Your task to perform on an android device: Go to notification settings Image 0: 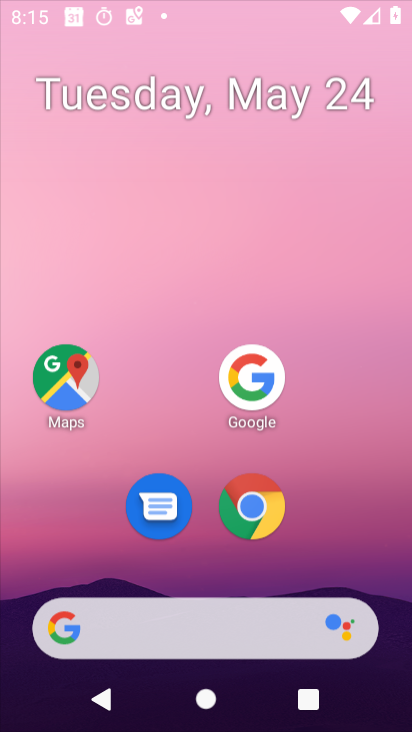
Step 0: click (265, 112)
Your task to perform on an android device: Go to notification settings Image 1: 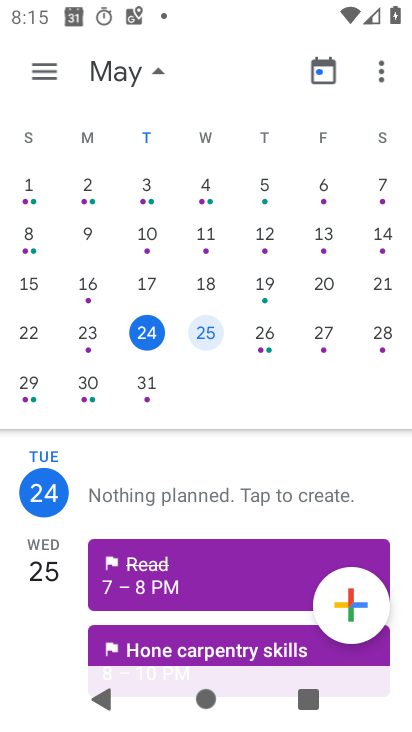
Step 1: press home button
Your task to perform on an android device: Go to notification settings Image 2: 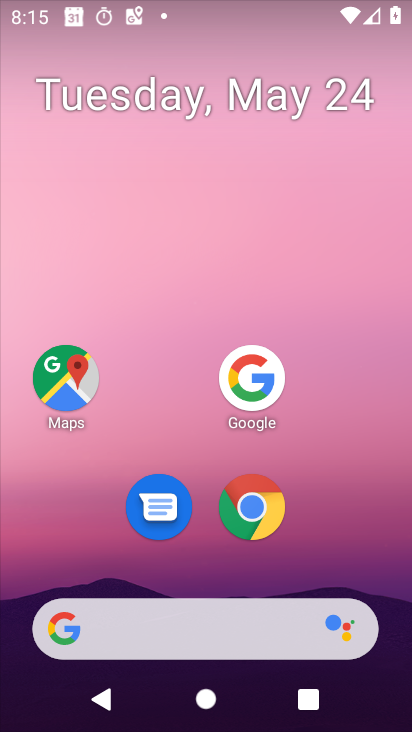
Step 2: drag from (245, 254) to (277, 119)
Your task to perform on an android device: Go to notification settings Image 3: 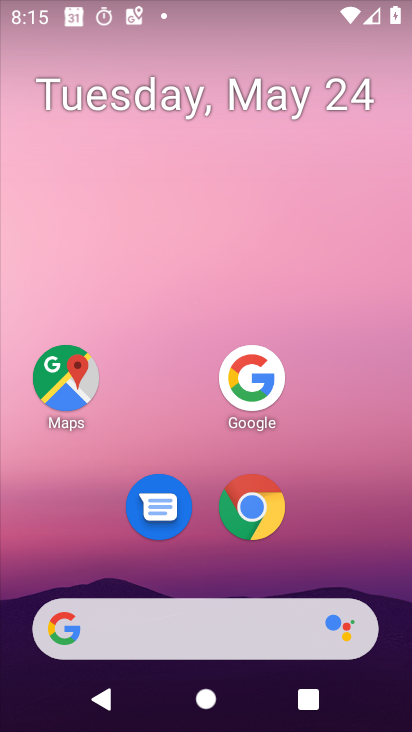
Step 3: drag from (181, 620) to (289, 57)
Your task to perform on an android device: Go to notification settings Image 4: 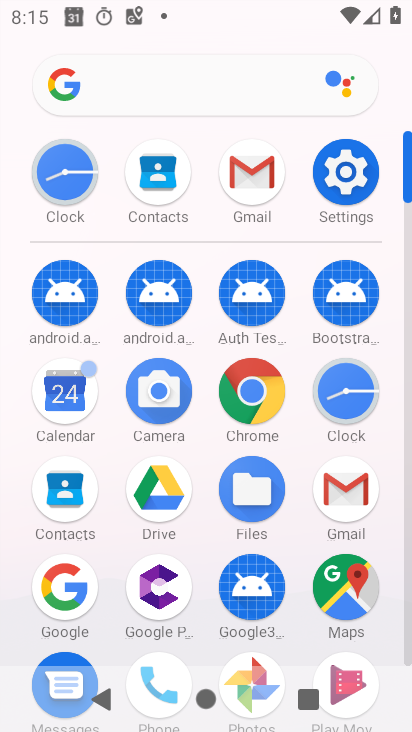
Step 4: click (346, 184)
Your task to perform on an android device: Go to notification settings Image 5: 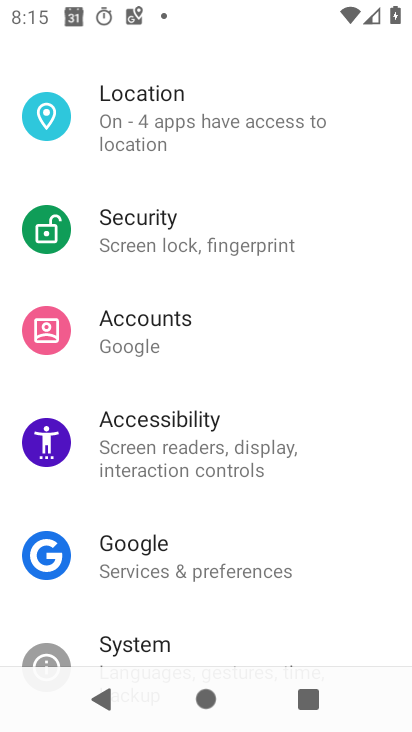
Step 5: drag from (236, 178) to (180, 631)
Your task to perform on an android device: Go to notification settings Image 6: 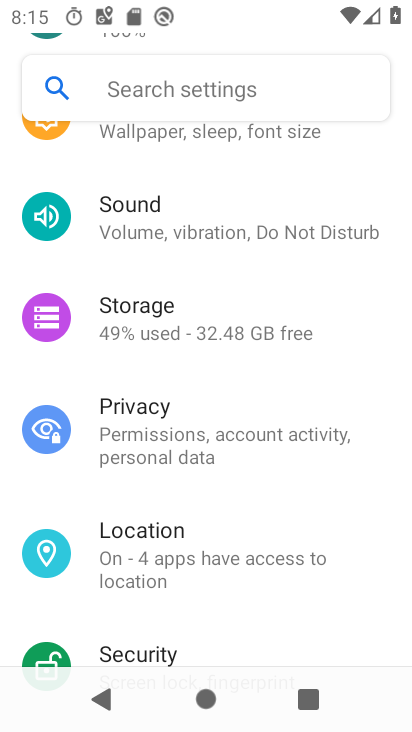
Step 6: drag from (281, 193) to (272, 501)
Your task to perform on an android device: Go to notification settings Image 7: 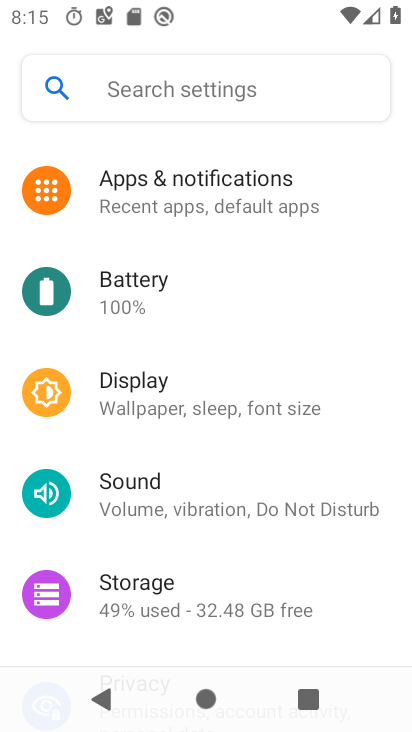
Step 7: click (209, 191)
Your task to perform on an android device: Go to notification settings Image 8: 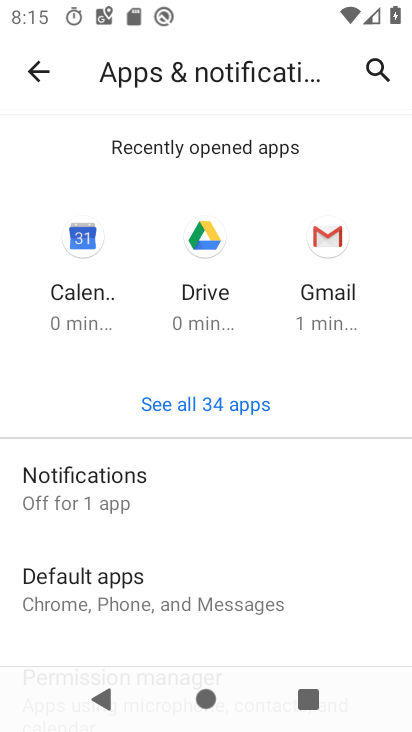
Step 8: click (97, 498)
Your task to perform on an android device: Go to notification settings Image 9: 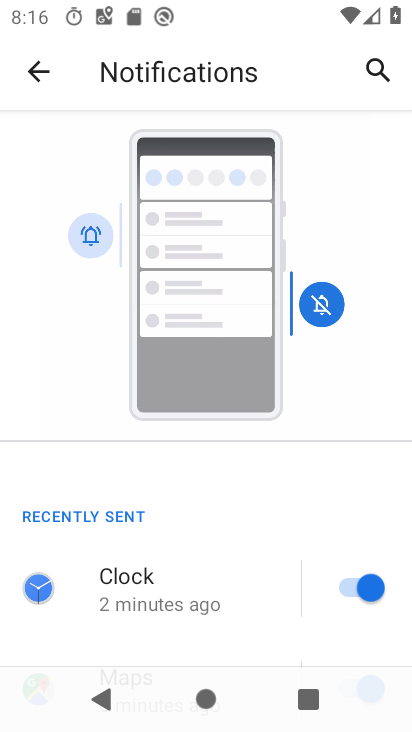
Step 9: task complete